Your task to perform on an android device: all mails in gmail Image 0: 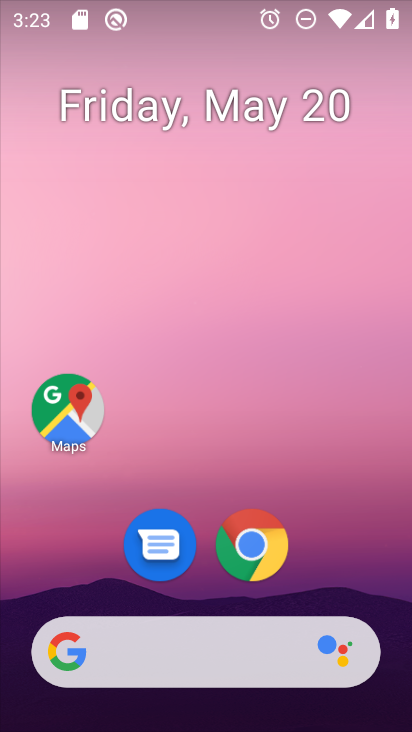
Step 0: drag from (329, 557) to (312, 67)
Your task to perform on an android device: all mails in gmail Image 1: 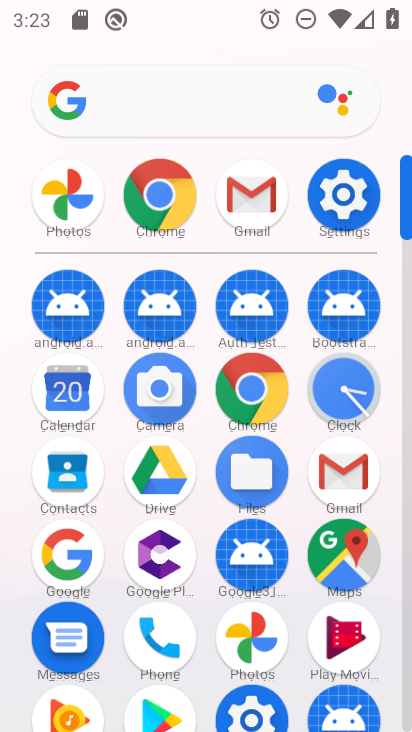
Step 1: click (247, 194)
Your task to perform on an android device: all mails in gmail Image 2: 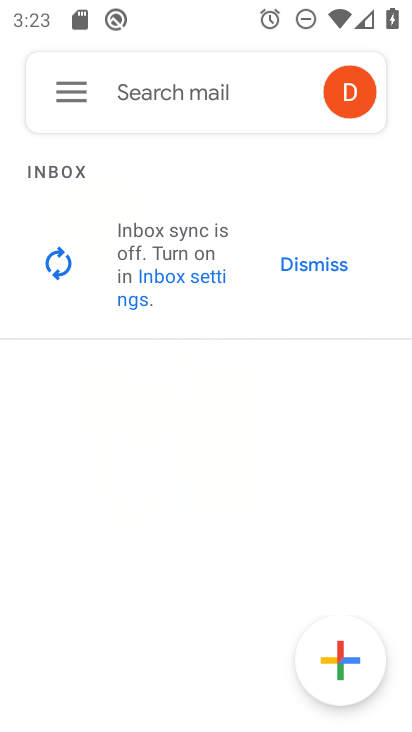
Step 2: click (77, 84)
Your task to perform on an android device: all mails in gmail Image 3: 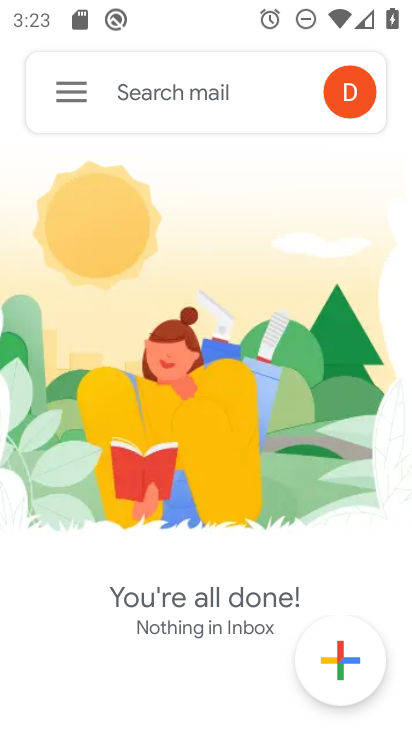
Step 3: click (72, 96)
Your task to perform on an android device: all mails in gmail Image 4: 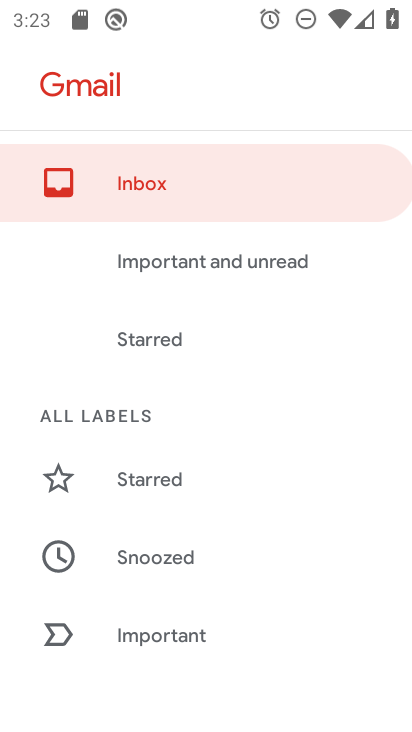
Step 4: drag from (239, 575) to (213, 200)
Your task to perform on an android device: all mails in gmail Image 5: 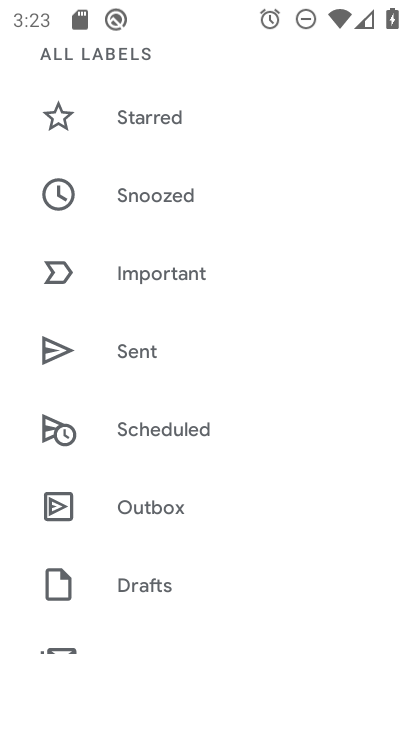
Step 5: drag from (238, 609) to (228, 231)
Your task to perform on an android device: all mails in gmail Image 6: 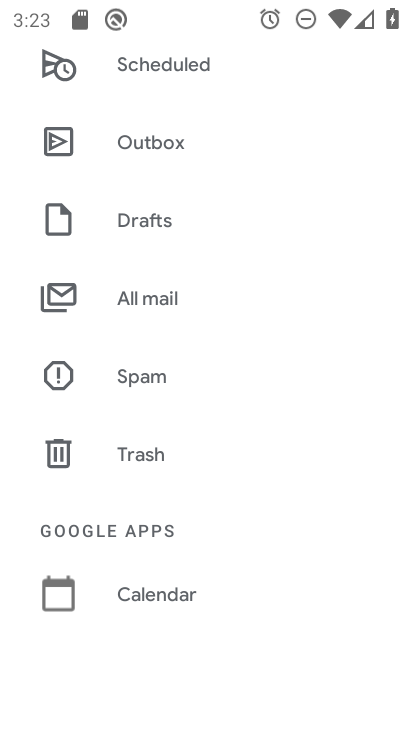
Step 6: click (156, 311)
Your task to perform on an android device: all mails in gmail Image 7: 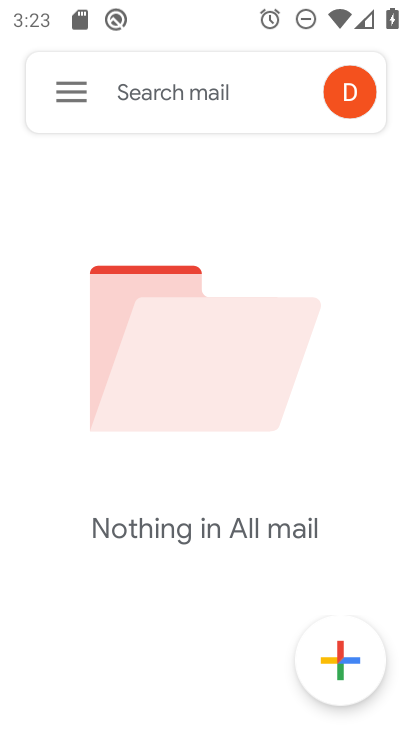
Step 7: task complete